Your task to perform on an android device: Open Youtube and go to the subscriptions tab Image 0: 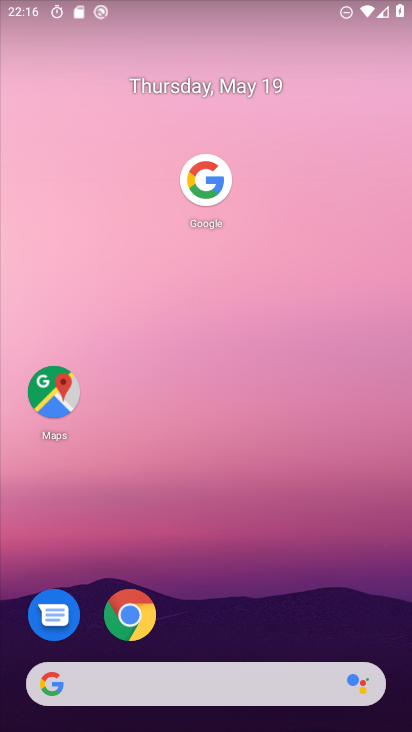
Step 0: drag from (239, 604) to (184, 95)
Your task to perform on an android device: Open Youtube and go to the subscriptions tab Image 1: 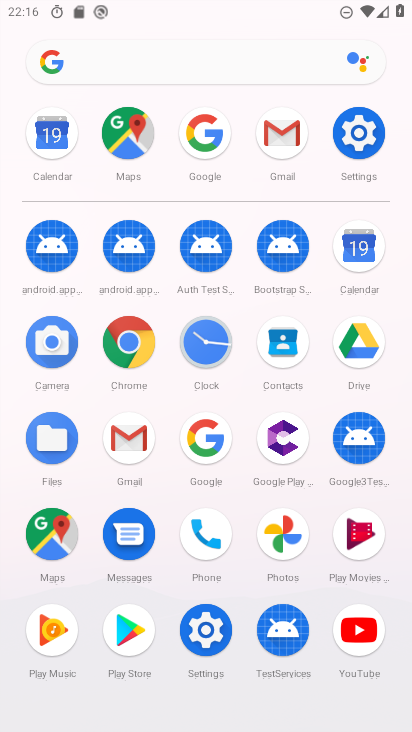
Step 1: click (357, 627)
Your task to perform on an android device: Open Youtube and go to the subscriptions tab Image 2: 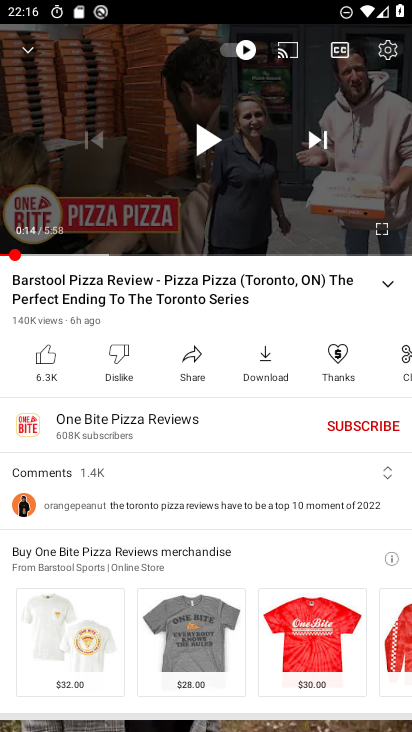
Step 2: press back button
Your task to perform on an android device: Open Youtube and go to the subscriptions tab Image 3: 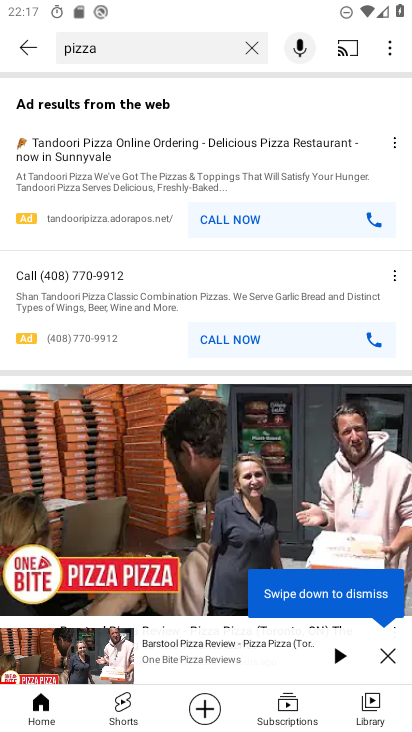
Step 3: click (283, 705)
Your task to perform on an android device: Open Youtube and go to the subscriptions tab Image 4: 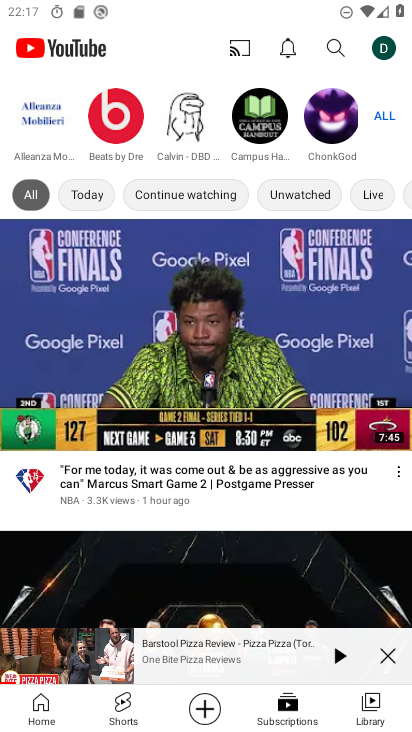
Step 4: task complete